Your task to perform on an android device: Go to Wikipedia Image 0: 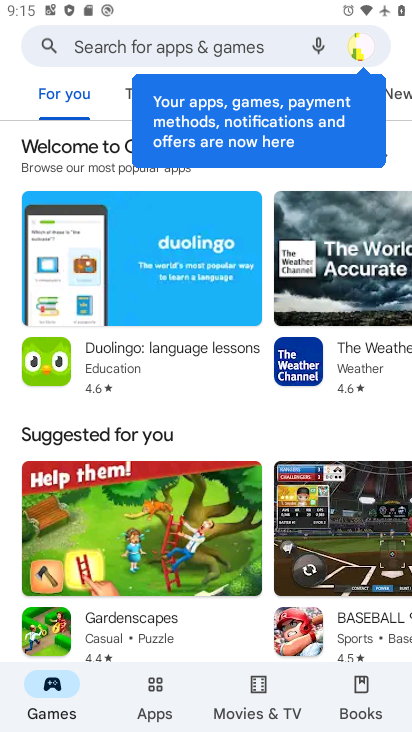
Step 0: press home button
Your task to perform on an android device: Go to Wikipedia Image 1: 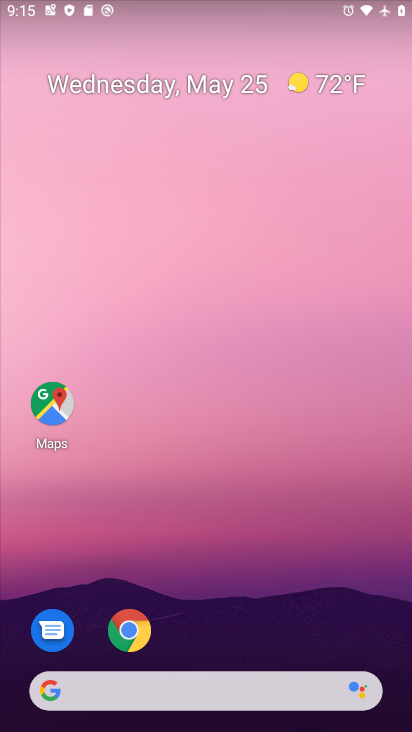
Step 1: click (118, 616)
Your task to perform on an android device: Go to Wikipedia Image 2: 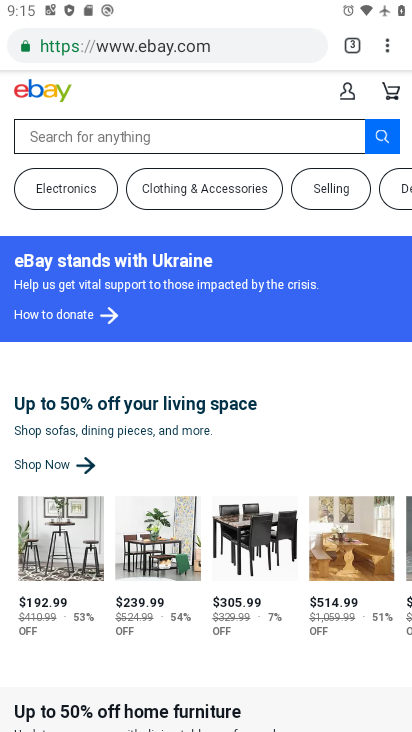
Step 2: click (344, 44)
Your task to perform on an android device: Go to Wikipedia Image 3: 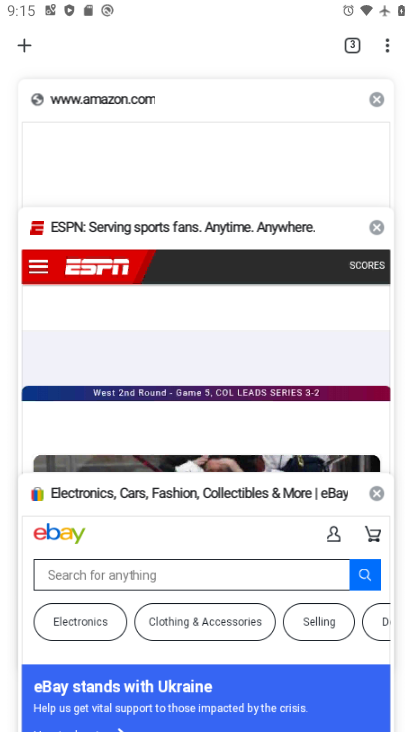
Step 3: click (29, 36)
Your task to perform on an android device: Go to Wikipedia Image 4: 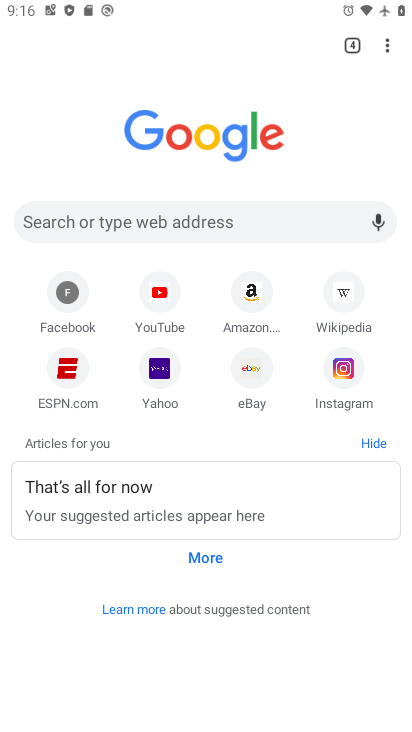
Step 4: click (110, 208)
Your task to perform on an android device: Go to Wikipedia Image 5: 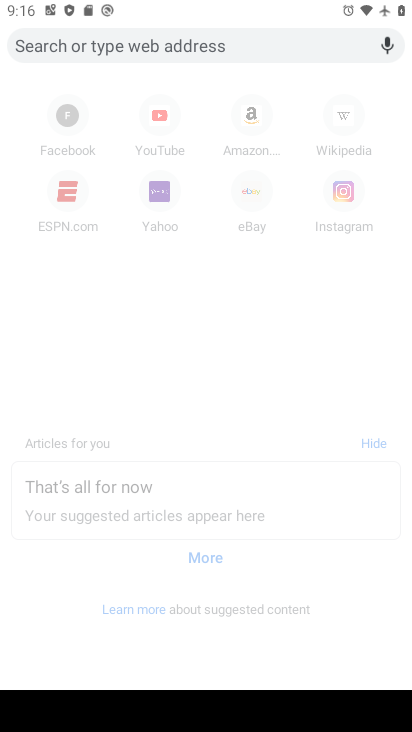
Step 5: type "Wikipedia"
Your task to perform on an android device: Go to Wikipedia Image 6: 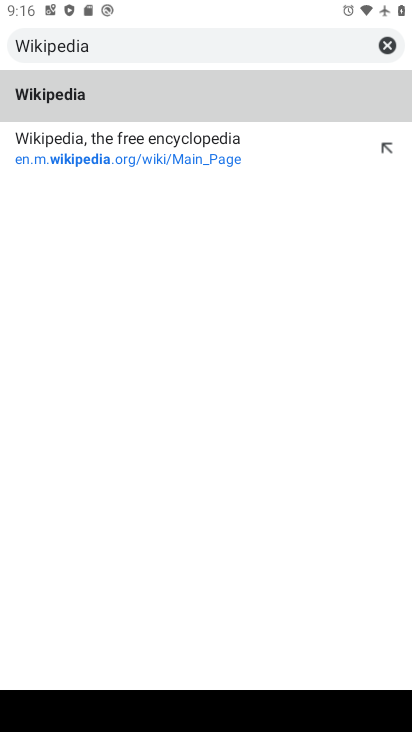
Step 6: click (110, 93)
Your task to perform on an android device: Go to Wikipedia Image 7: 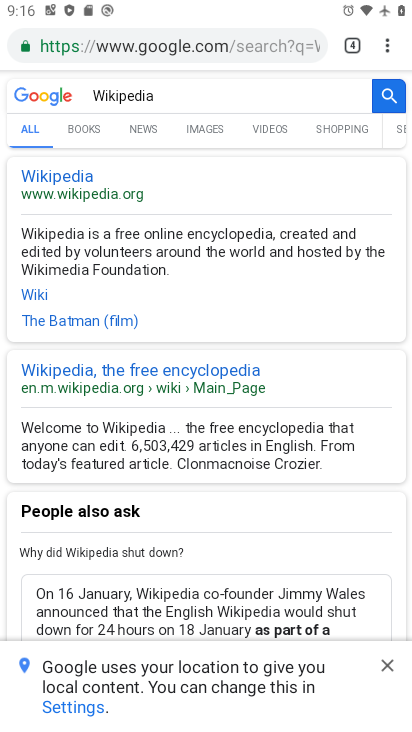
Step 7: click (53, 174)
Your task to perform on an android device: Go to Wikipedia Image 8: 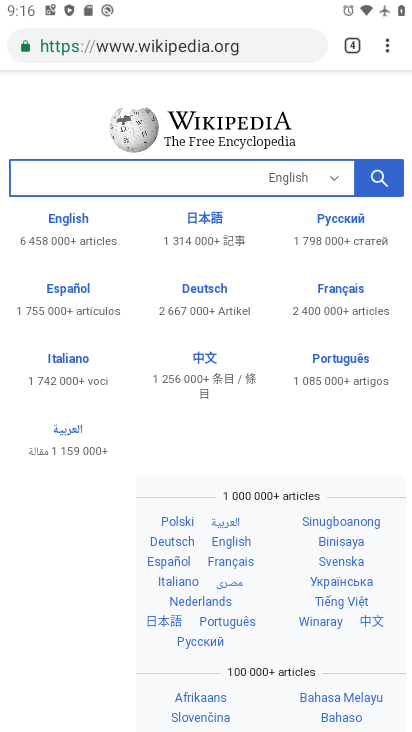
Step 8: task complete